Your task to perform on an android device: search for starred emails in the gmail app Image 0: 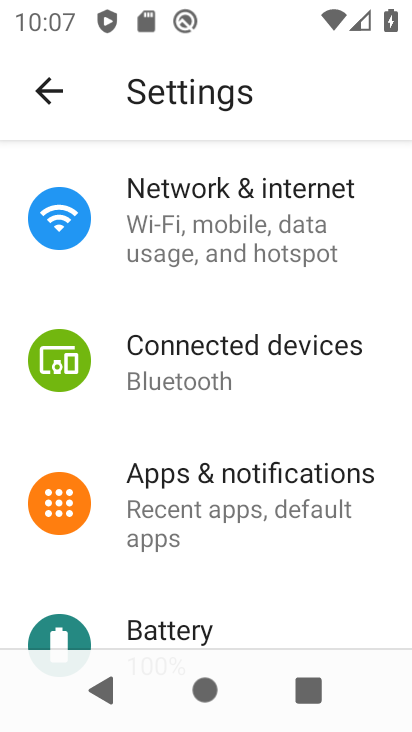
Step 0: press back button
Your task to perform on an android device: search for starred emails in the gmail app Image 1: 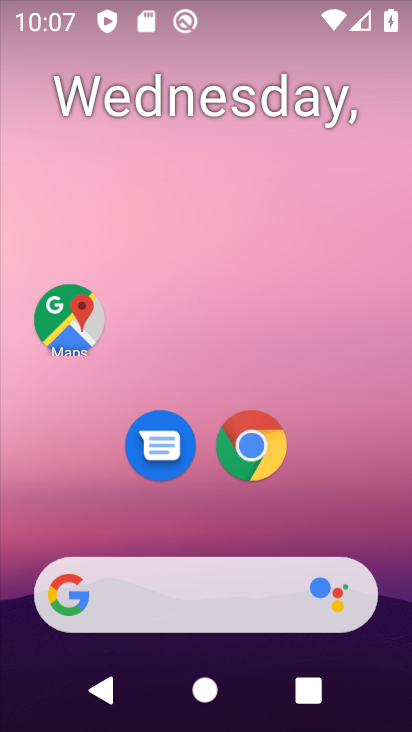
Step 1: drag from (166, 496) to (286, 50)
Your task to perform on an android device: search for starred emails in the gmail app Image 2: 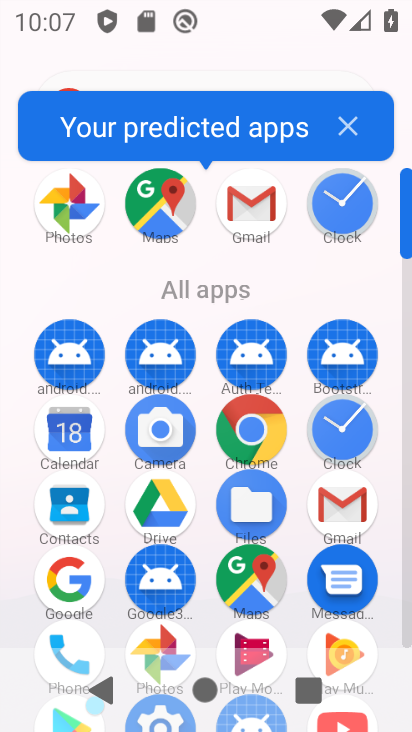
Step 2: click (271, 211)
Your task to perform on an android device: search for starred emails in the gmail app Image 3: 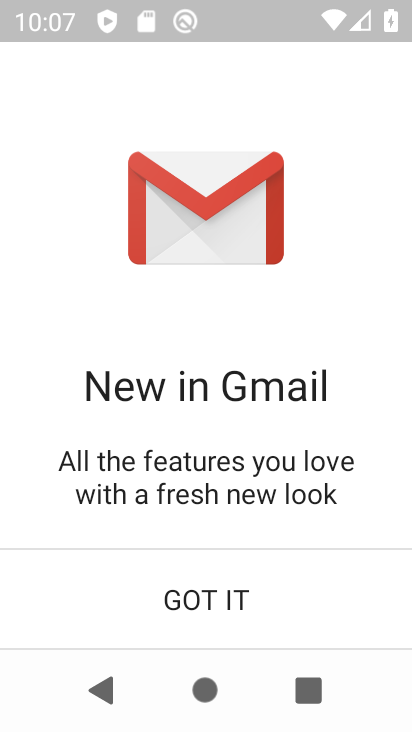
Step 3: click (222, 610)
Your task to perform on an android device: search for starred emails in the gmail app Image 4: 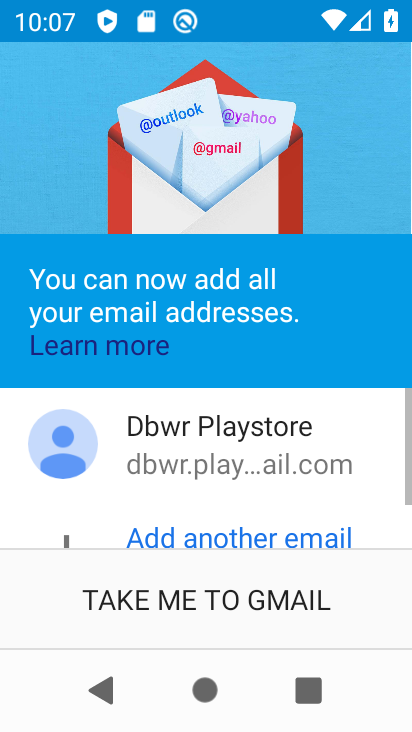
Step 4: click (194, 599)
Your task to perform on an android device: search for starred emails in the gmail app Image 5: 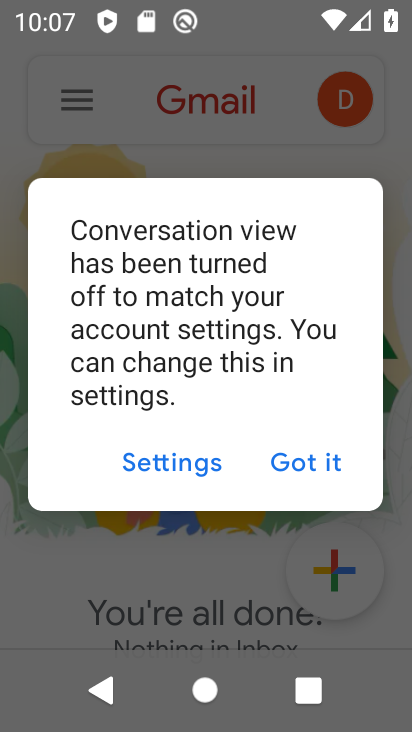
Step 5: click (301, 454)
Your task to perform on an android device: search for starred emails in the gmail app Image 6: 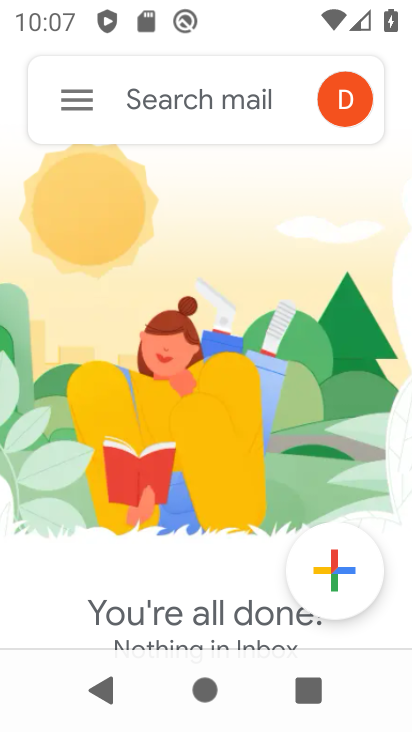
Step 6: click (66, 93)
Your task to perform on an android device: search for starred emails in the gmail app Image 7: 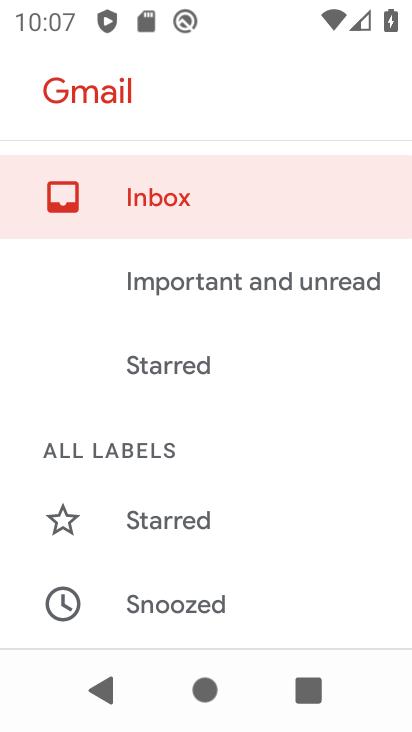
Step 7: click (198, 368)
Your task to perform on an android device: search for starred emails in the gmail app Image 8: 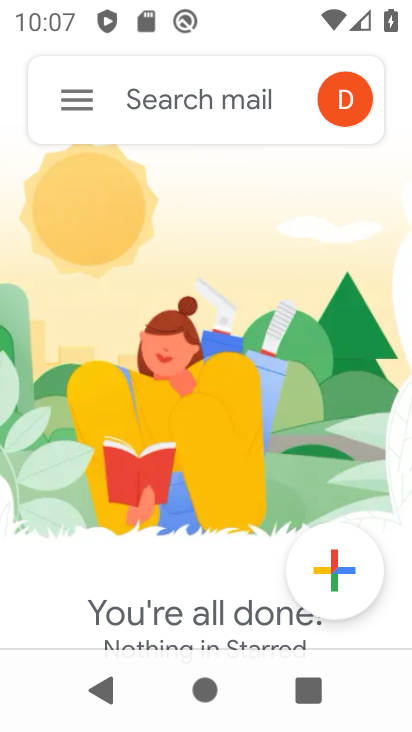
Step 8: task complete